Your task to perform on an android device: Go to Amazon Image 0: 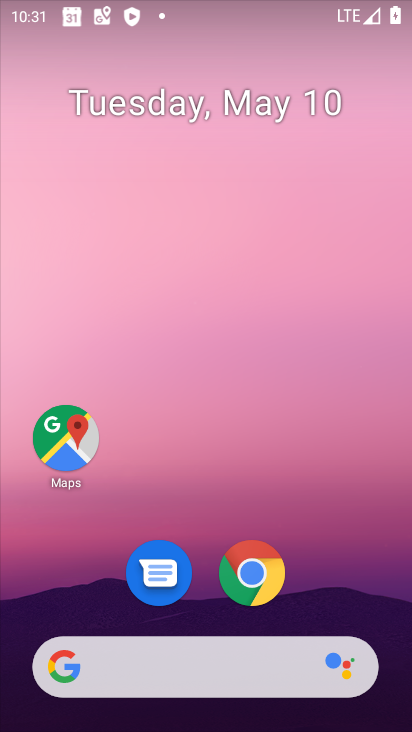
Step 0: click (258, 571)
Your task to perform on an android device: Go to Amazon Image 1: 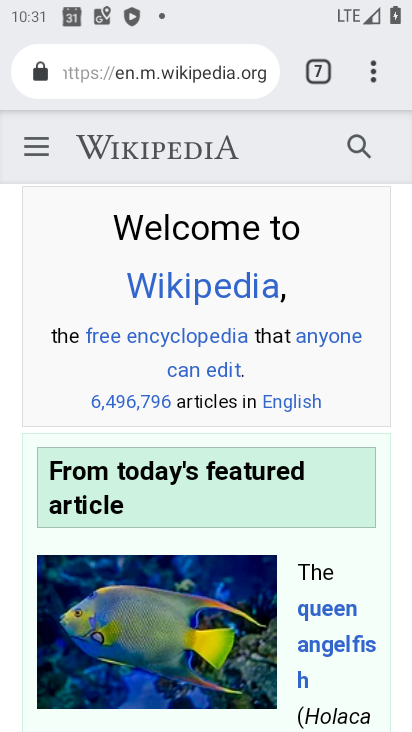
Step 1: click (369, 71)
Your task to perform on an android device: Go to Amazon Image 2: 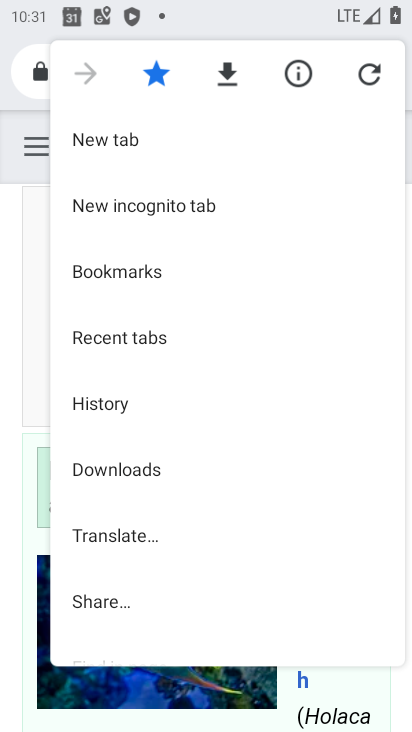
Step 2: click (125, 134)
Your task to perform on an android device: Go to Amazon Image 3: 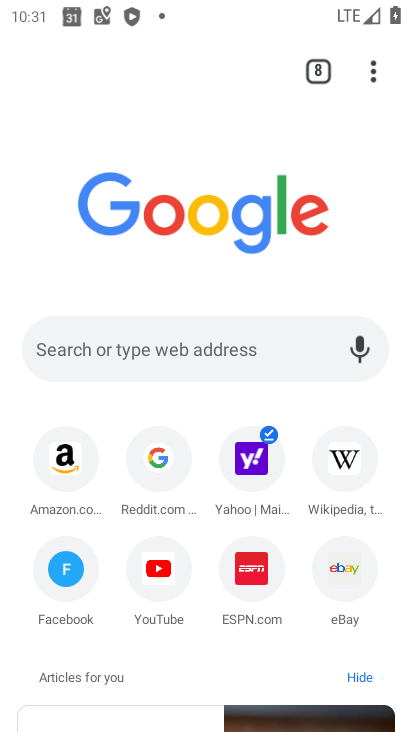
Step 3: click (61, 461)
Your task to perform on an android device: Go to Amazon Image 4: 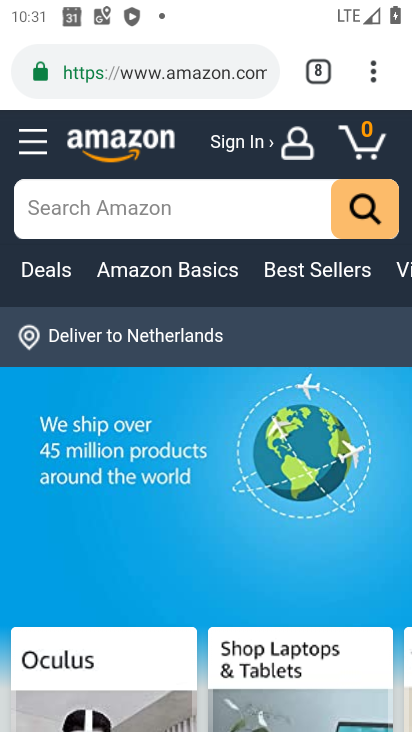
Step 4: task complete